Your task to perform on an android device: turn on wifi Image 0: 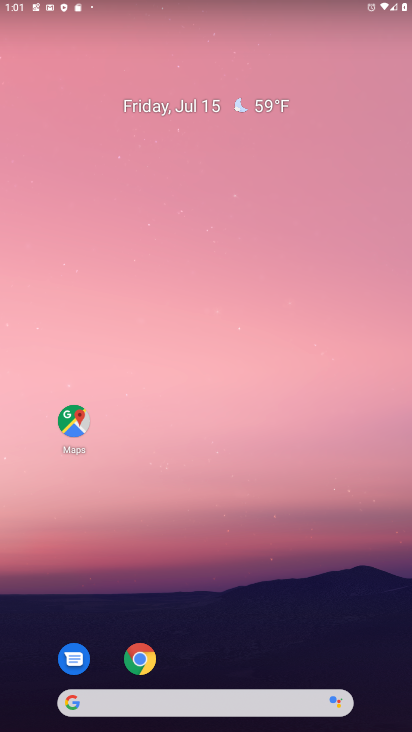
Step 0: drag from (212, 724) to (227, 186)
Your task to perform on an android device: turn on wifi Image 1: 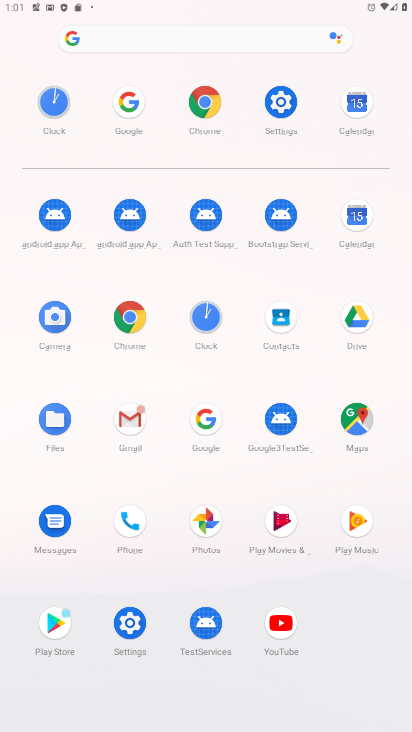
Step 1: click (284, 92)
Your task to perform on an android device: turn on wifi Image 2: 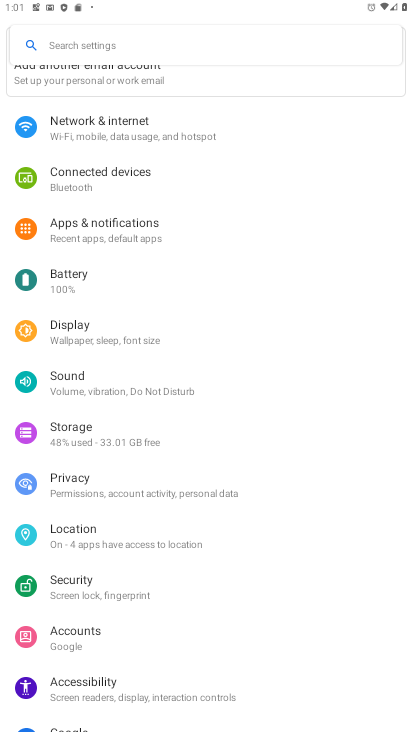
Step 2: click (130, 126)
Your task to perform on an android device: turn on wifi Image 3: 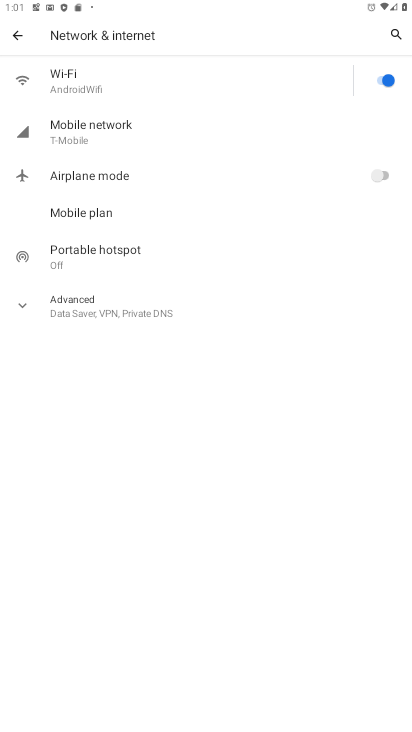
Step 3: task complete